Your task to perform on an android device: turn off wifi Image 0: 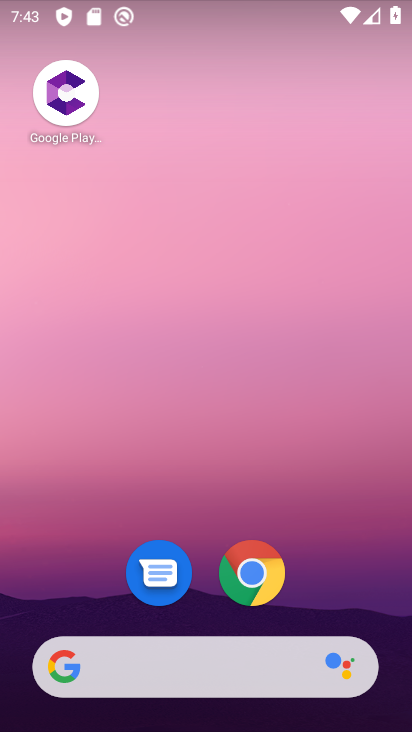
Step 0: drag from (362, 505) to (230, 5)
Your task to perform on an android device: turn off wifi Image 1: 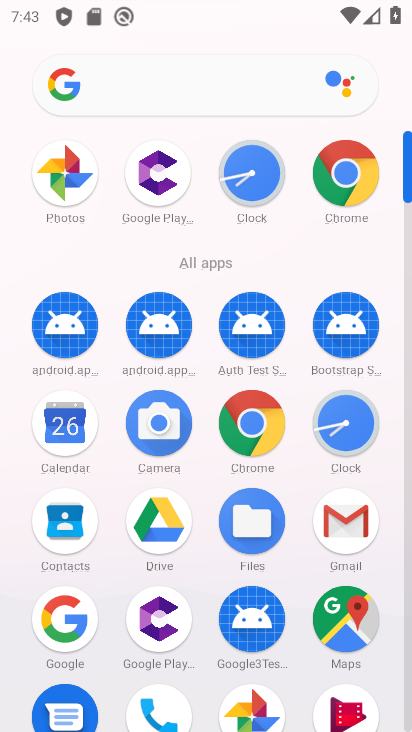
Step 1: drag from (10, 628) to (10, 361)
Your task to perform on an android device: turn off wifi Image 2: 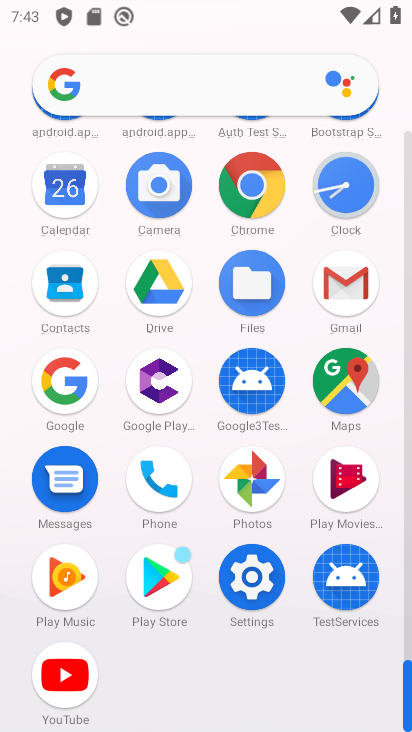
Step 2: click (250, 576)
Your task to perform on an android device: turn off wifi Image 3: 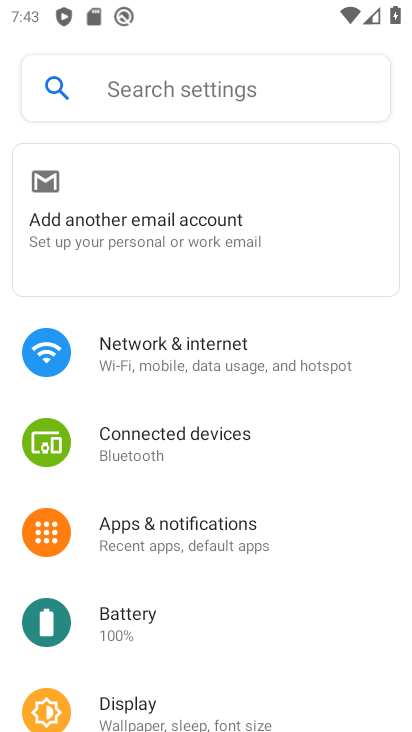
Step 3: click (210, 346)
Your task to perform on an android device: turn off wifi Image 4: 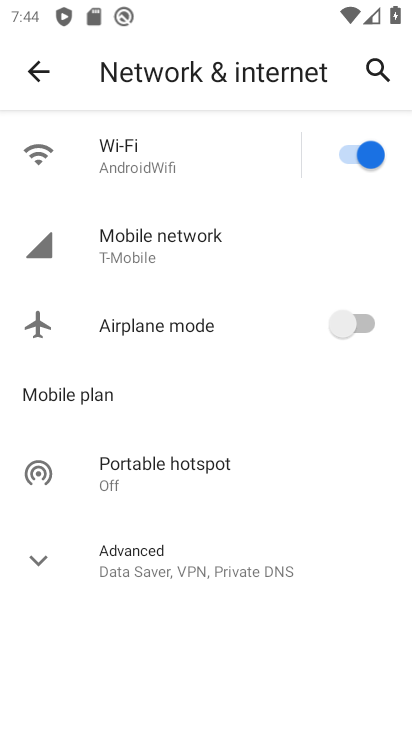
Step 4: click (352, 154)
Your task to perform on an android device: turn off wifi Image 5: 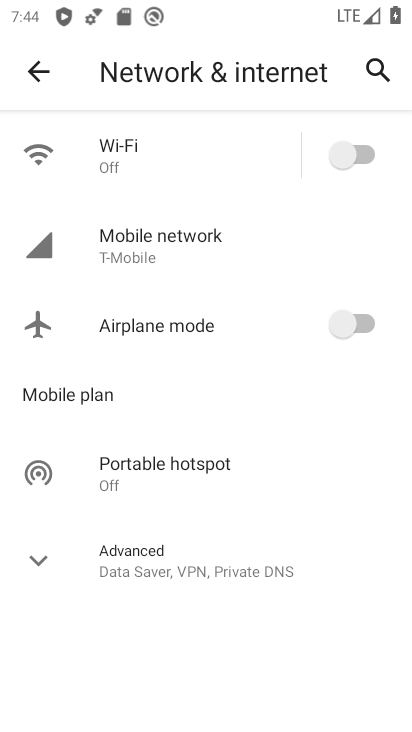
Step 5: task complete